Your task to perform on an android device: delete location history Image 0: 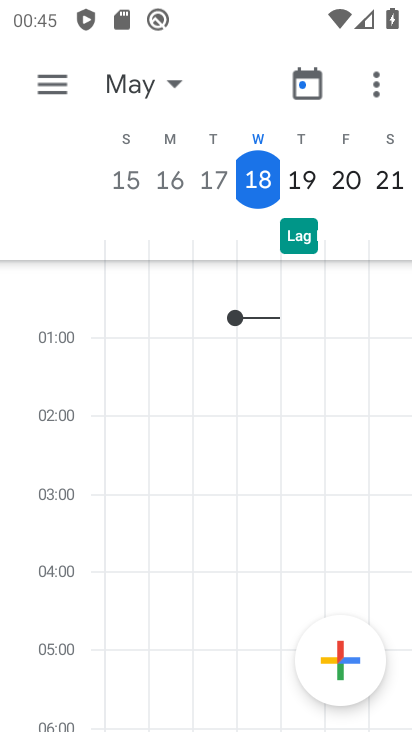
Step 0: press home button
Your task to perform on an android device: delete location history Image 1: 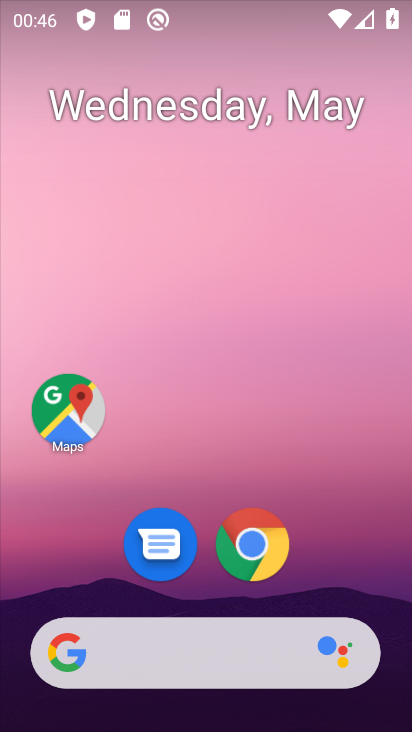
Step 1: drag from (337, 521) to (344, 169)
Your task to perform on an android device: delete location history Image 2: 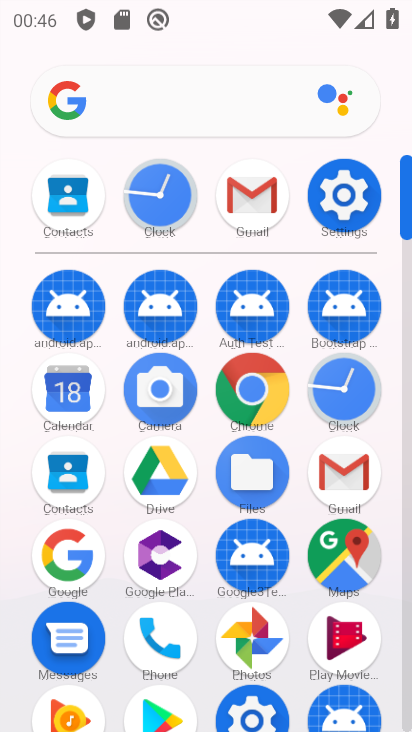
Step 2: click (349, 541)
Your task to perform on an android device: delete location history Image 3: 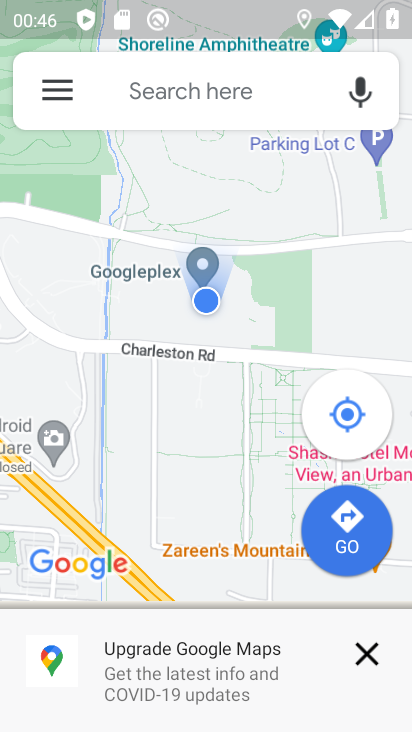
Step 3: click (64, 80)
Your task to perform on an android device: delete location history Image 4: 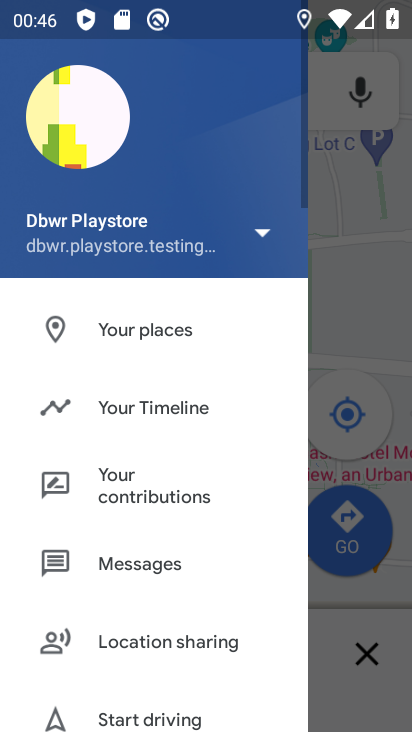
Step 4: drag from (137, 693) to (268, 294)
Your task to perform on an android device: delete location history Image 5: 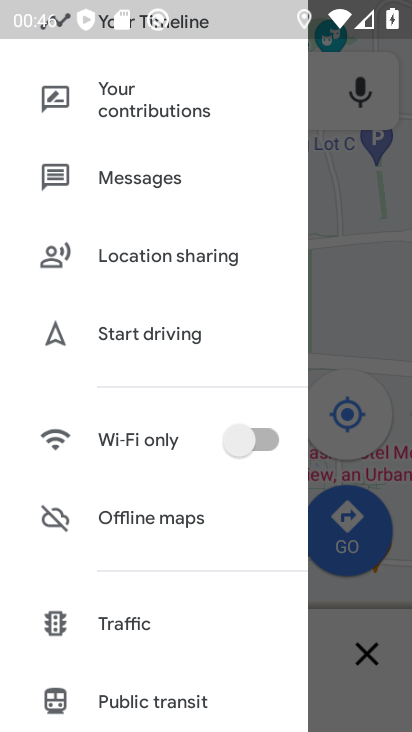
Step 5: drag from (176, 631) to (299, 315)
Your task to perform on an android device: delete location history Image 6: 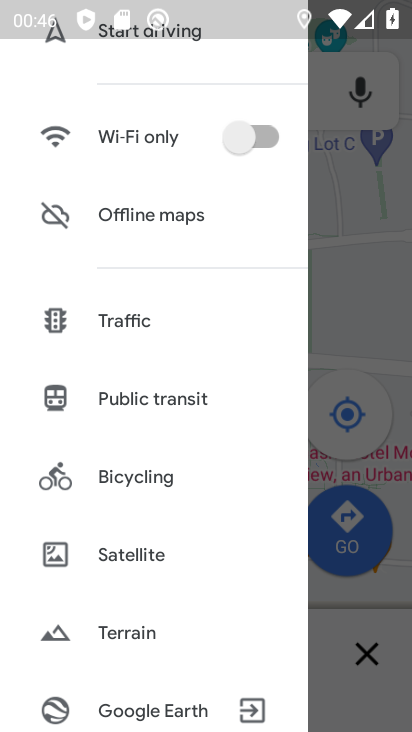
Step 6: drag from (216, 608) to (299, 315)
Your task to perform on an android device: delete location history Image 7: 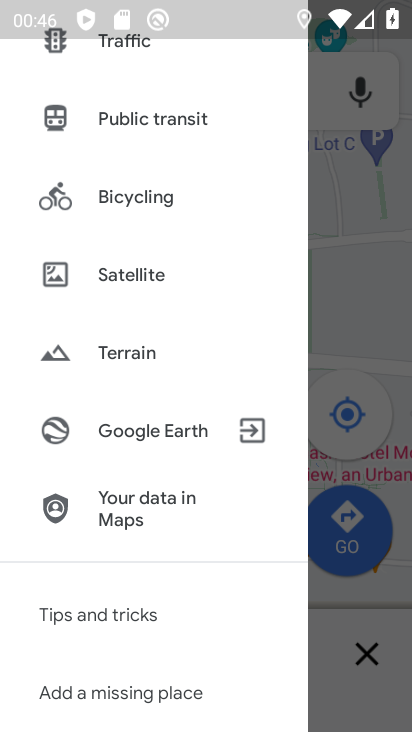
Step 7: drag from (128, 671) to (240, 385)
Your task to perform on an android device: delete location history Image 8: 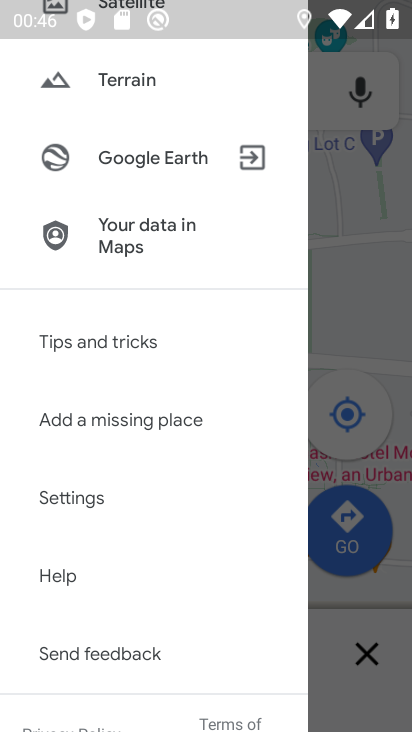
Step 8: click (92, 498)
Your task to perform on an android device: delete location history Image 9: 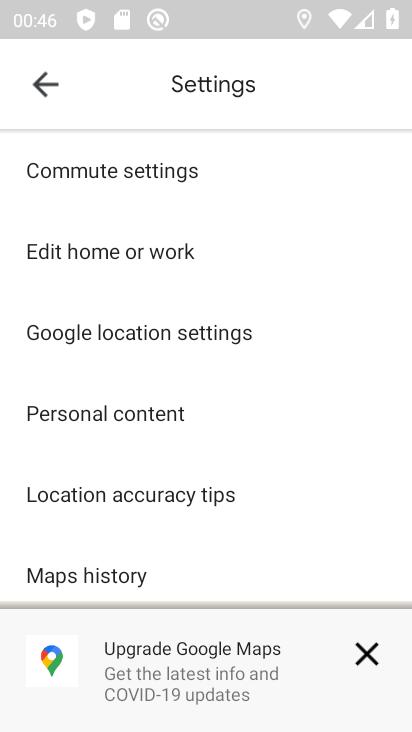
Step 9: drag from (218, 524) to (261, 274)
Your task to perform on an android device: delete location history Image 10: 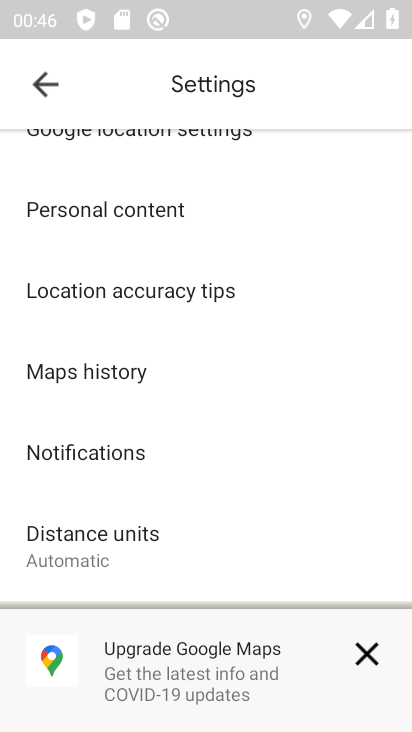
Step 10: click (128, 380)
Your task to perform on an android device: delete location history Image 11: 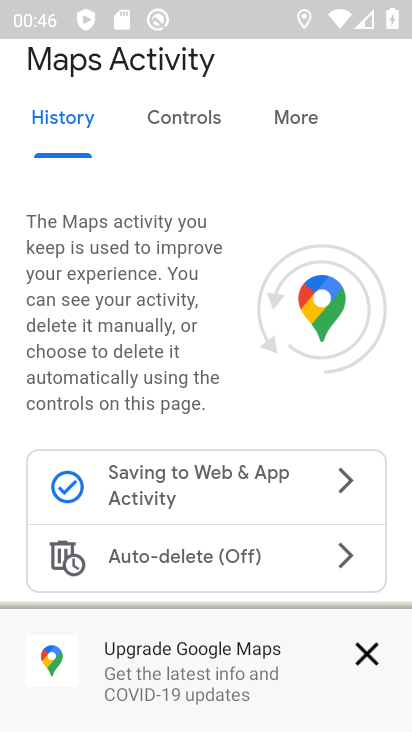
Step 11: drag from (199, 584) to (302, 245)
Your task to perform on an android device: delete location history Image 12: 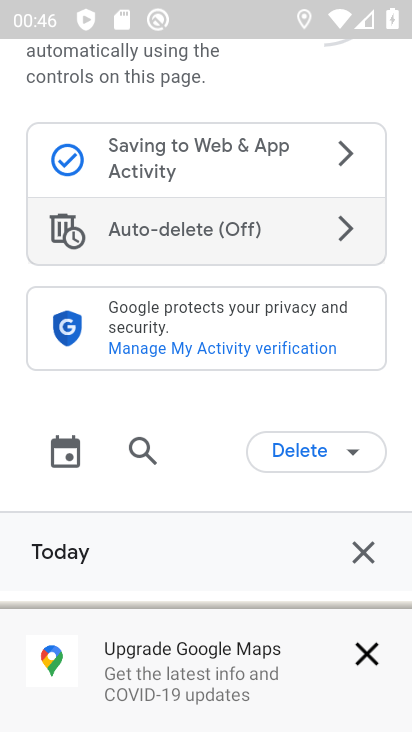
Step 12: click (320, 454)
Your task to perform on an android device: delete location history Image 13: 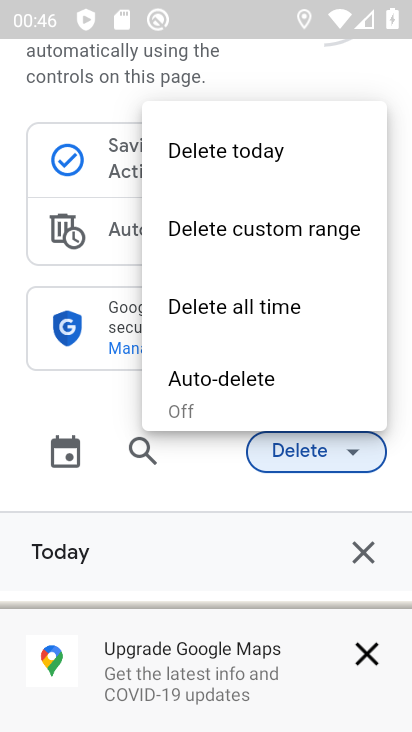
Step 13: click (350, 455)
Your task to perform on an android device: delete location history Image 14: 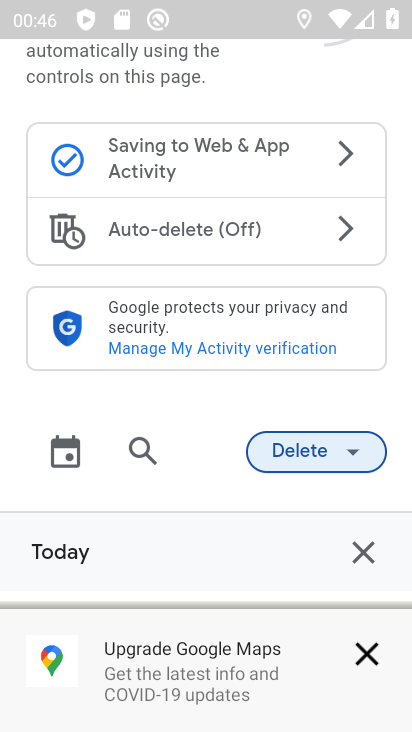
Step 14: click (350, 455)
Your task to perform on an android device: delete location history Image 15: 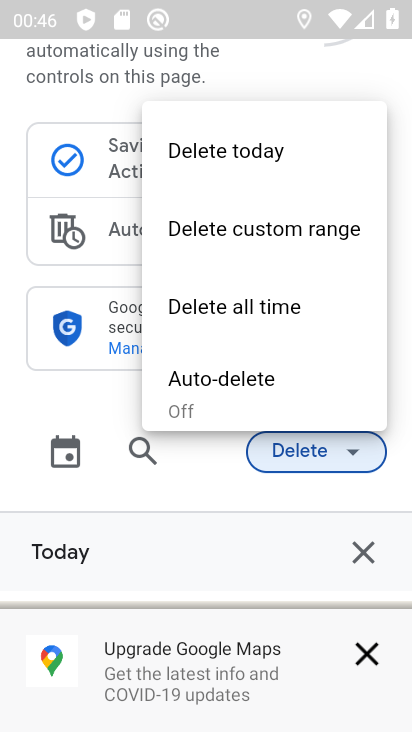
Step 15: click (271, 314)
Your task to perform on an android device: delete location history Image 16: 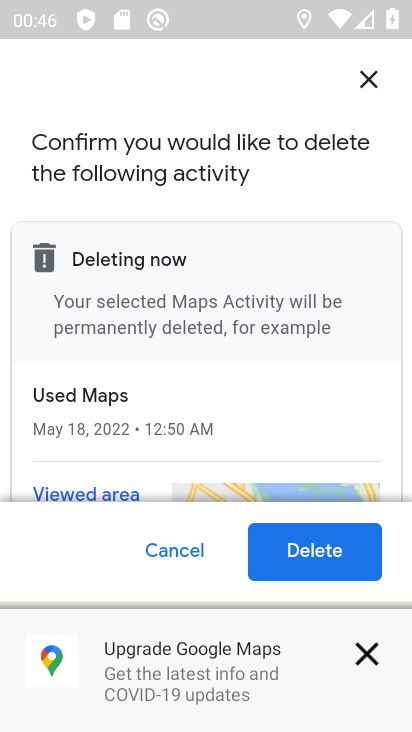
Step 16: click (308, 546)
Your task to perform on an android device: delete location history Image 17: 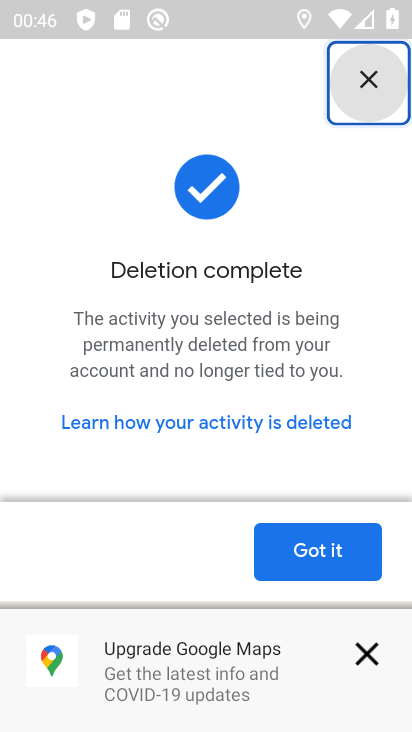
Step 17: task complete